Your task to perform on an android device: Open display settings Image 0: 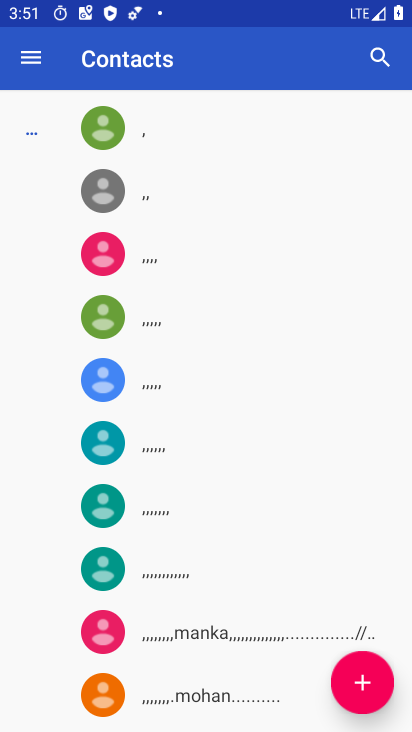
Step 0: press home button
Your task to perform on an android device: Open display settings Image 1: 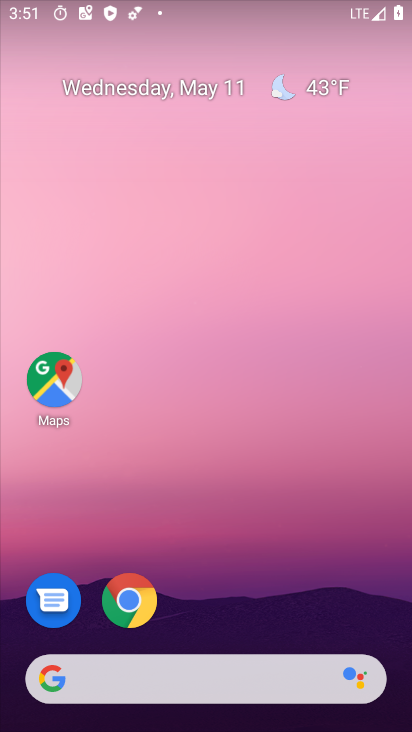
Step 1: drag from (310, 630) to (283, 3)
Your task to perform on an android device: Open display settings Image 2: 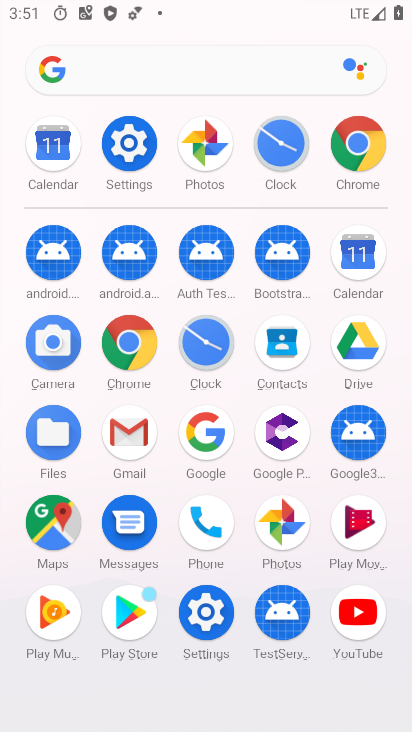
Step 2: click (123, 139)
Your task to perform on an android device: Open display settings Image 3: 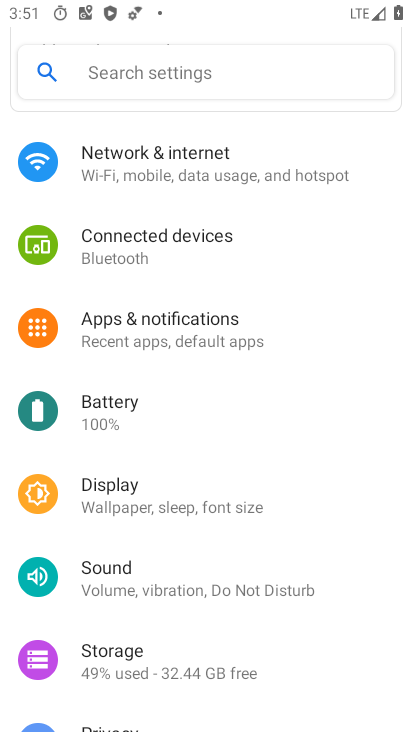
Step 3: click (108, 498)
Your task to perform on an android device: Open display settings Image 4: 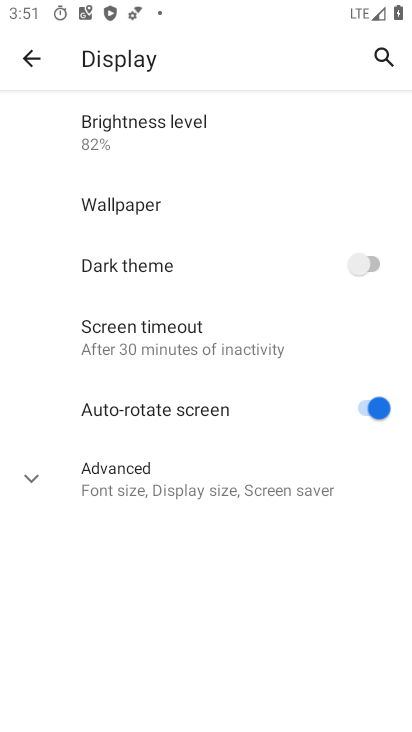
Step 4: task complete